Your task to perform on an android device: Play the last video I watched on Youtube Image 0: 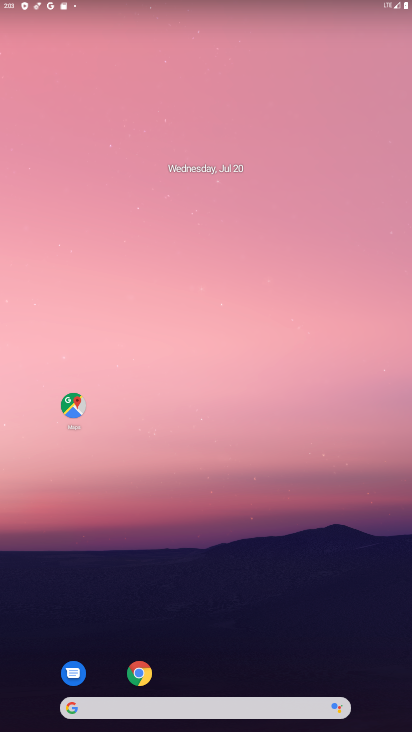
Step 0: drag from (240, 18) to (104, 0)
Your task to perform on an android device: Play the last video I watched on Youtube Image 1: 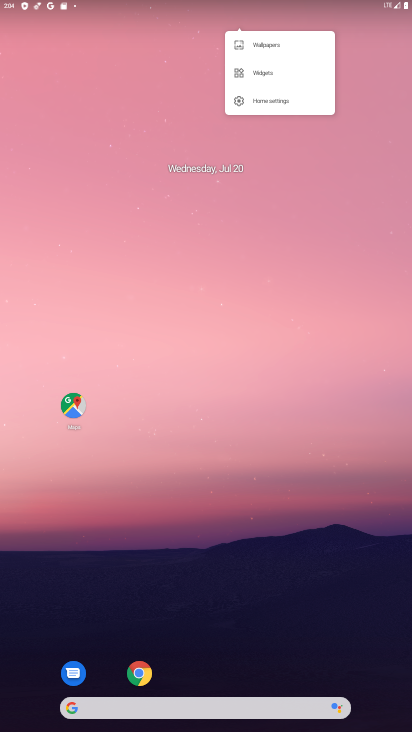
Step 1: drag from (187, 676) to (228, 151)
Your task to perform on an android device: Play the last video I watched on Youtube Image 2: 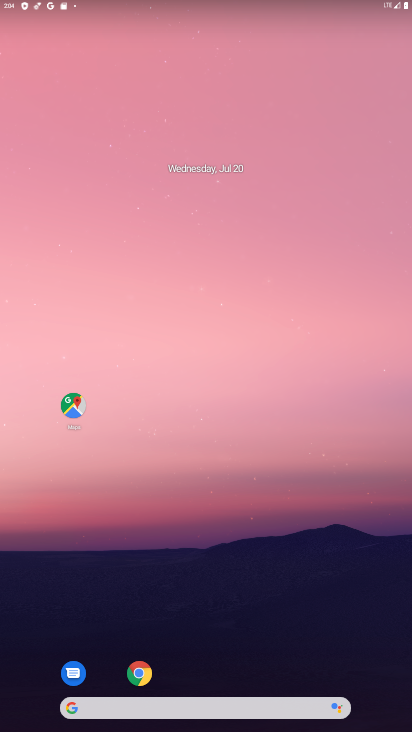
Step 2: drag from (214, 618) to (281, 79)
Your task to perform on an android device: Play the last video I watched on Youtube Image 3: 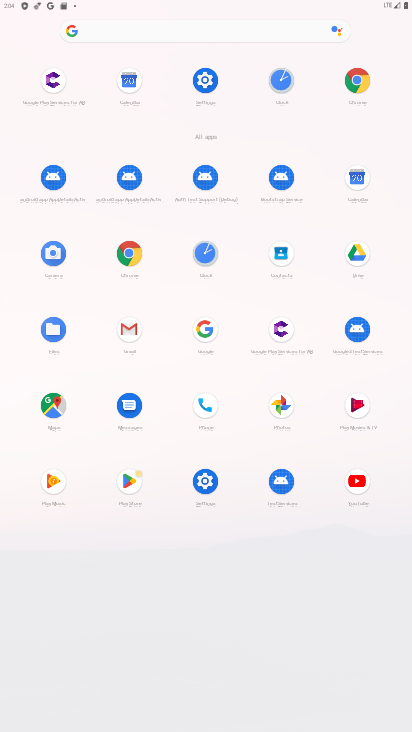
Step 3: click (364, 480)
Your task to perform on an android device: Play the last video I watched on Youtube Image 4: 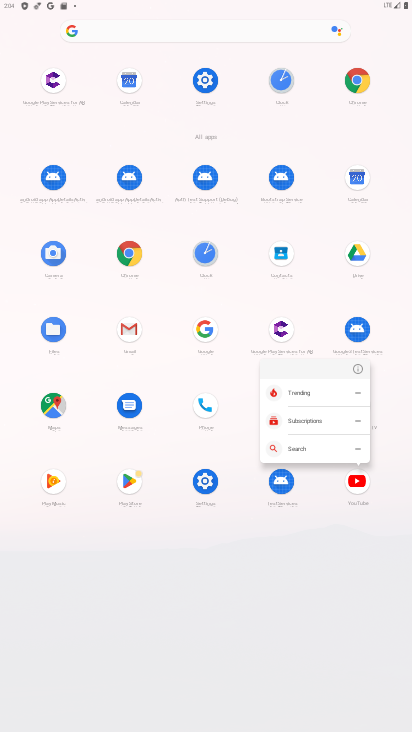
Step 4: click (360, 364)
Your task to perform on an android device: Play the last video I watched on Youtube Image 5: 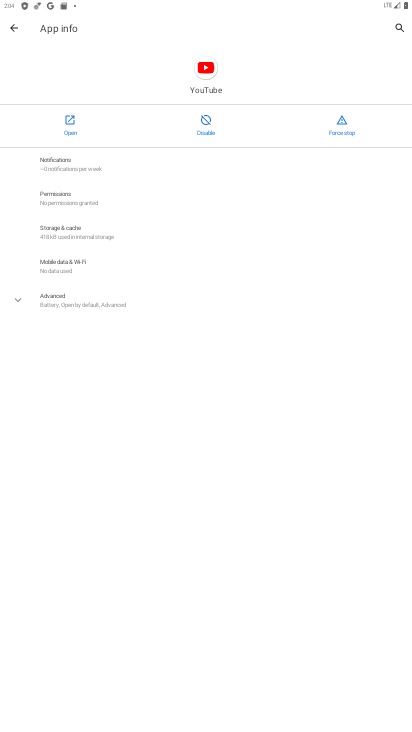
Step 5: click (73, 133)
Your task to perform on an android device: Play the last video I watched on Youtube Image 6: 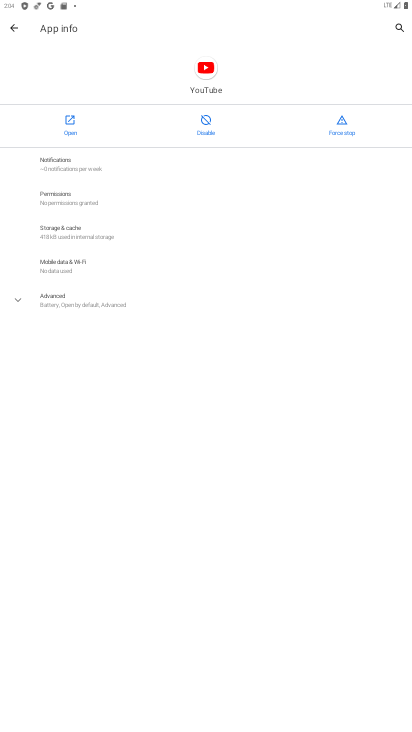
Step 6: click (73, 133)
Your task to perform on an android device: Play the last video I watched on Youtube Image 7: 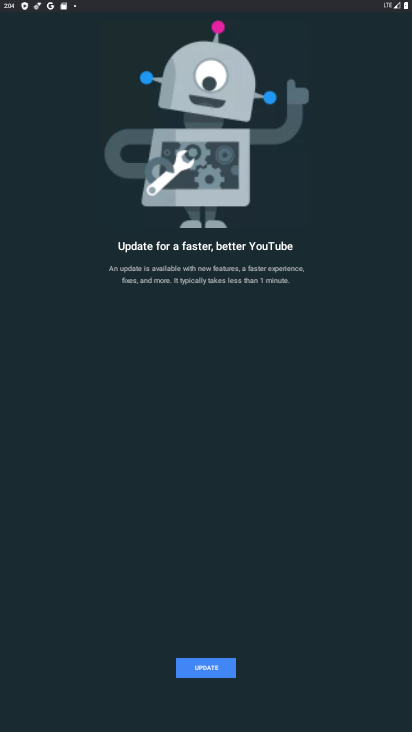
Step 7: press home button
Your task to perform on an android device: Play the last video I watched on Youtube Image 8: 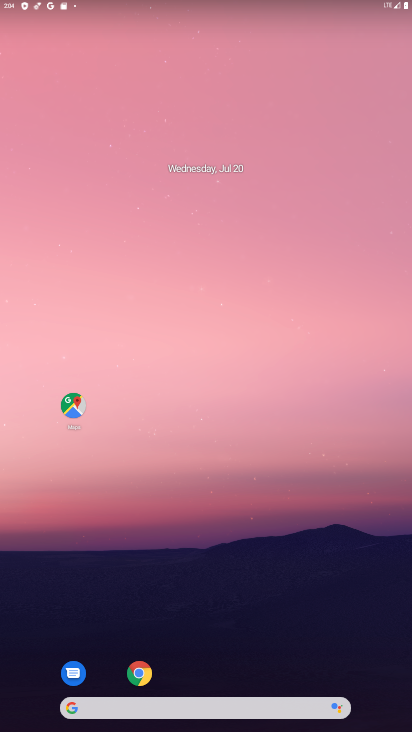
Step 8: drag from (204, 678) to (184, 10)
Your task to perform on an android device: Play the last video I watched on Youtube Image 9: 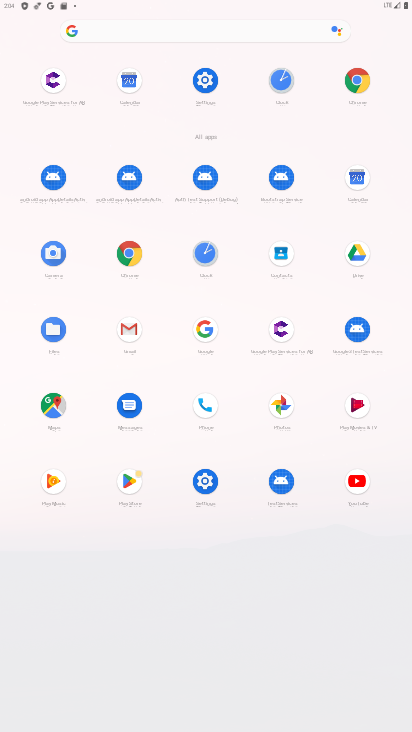
Step 9: click (362, 475)
Your task to perform on an android device: Play the last video I watched on Youtube Image 10: 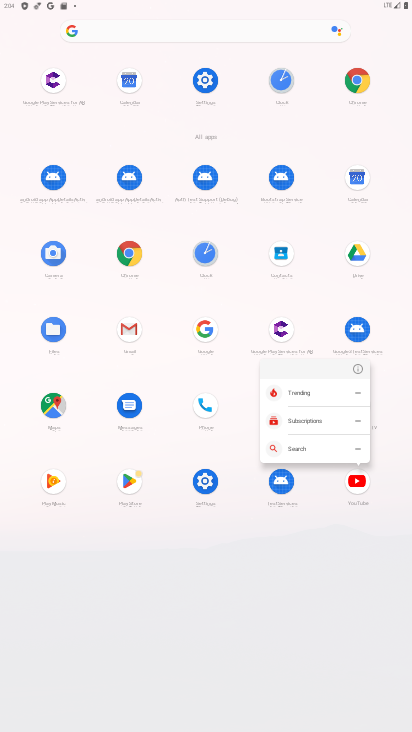
Step 10: click (359, 367)
Your task to perform on an android device: Play the last video I watched on Youtube Image 11: 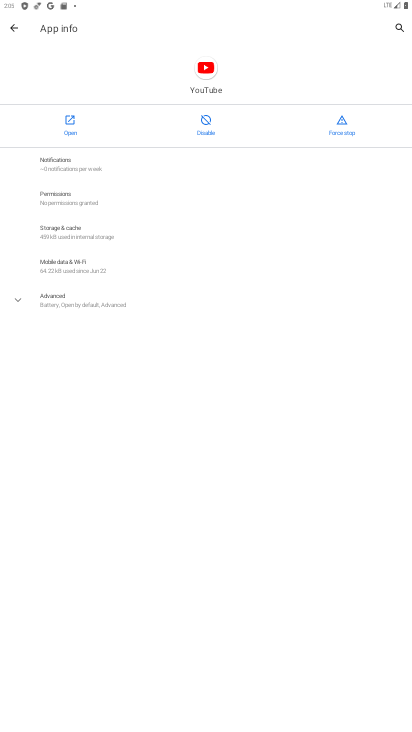
Step 11: click (73, 117)
Your task to perform on an android device: Play the last video I watched on Youtube Image 12: 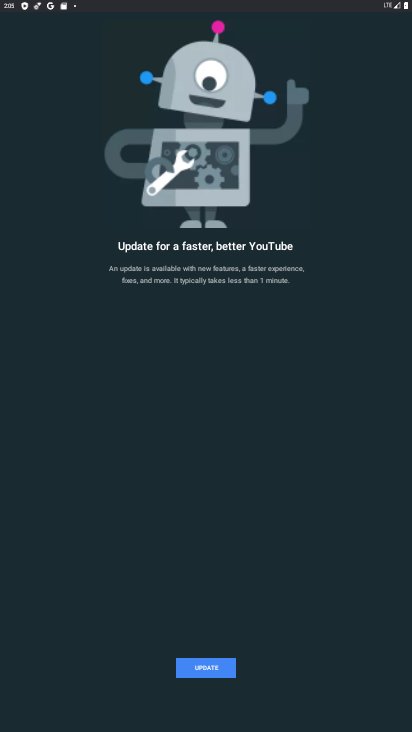
Step 12: task complete